Your task to perform on an android device: toggle show notifications on the lock screen Image 0: 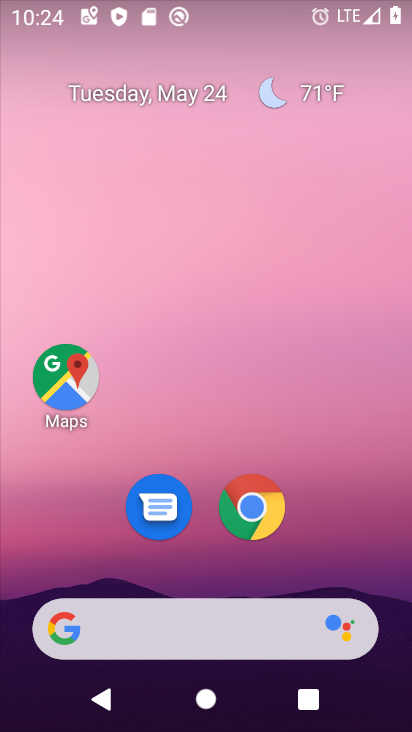
Step 0: drag from (232, 728) to (234, 104)
Your task to perform on an android device: toggle show notifications on the lock screen Image 1: 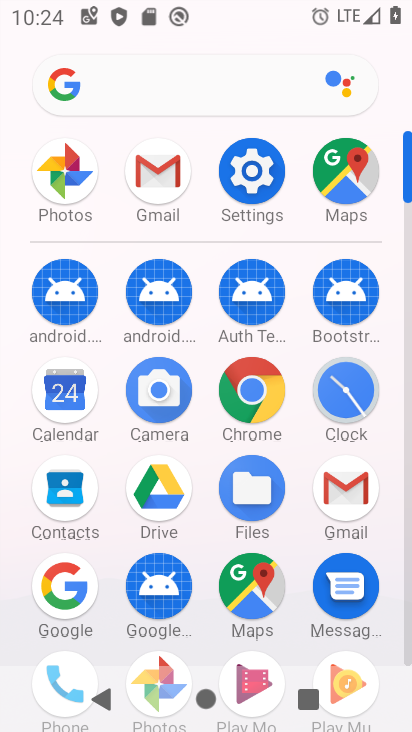
Step 1: click (242, 173)
Your task to perform on an android device: toggle show notifications on the lock screen Image 2: 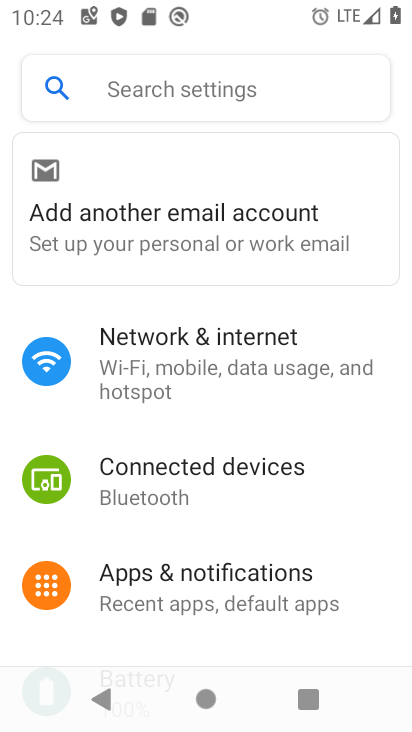
Step 2: click (176, 579)
Your task to perform on an android device: toggle show notifications on the lock screen Image 3: 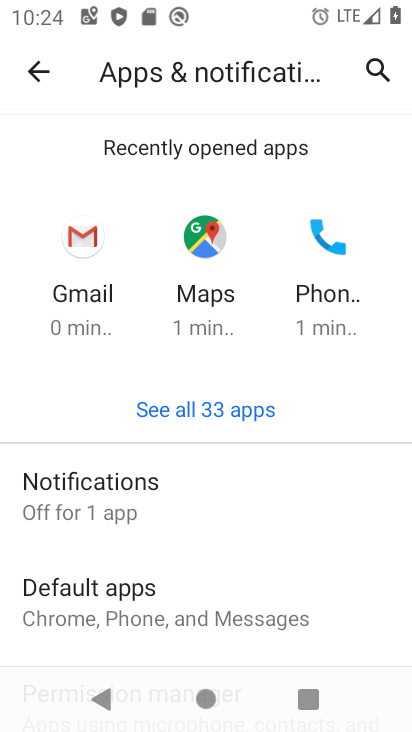
Step 3: click (80, 501)
Your task to perform on an android device: toggle show notifications on the lock screen Image 4: 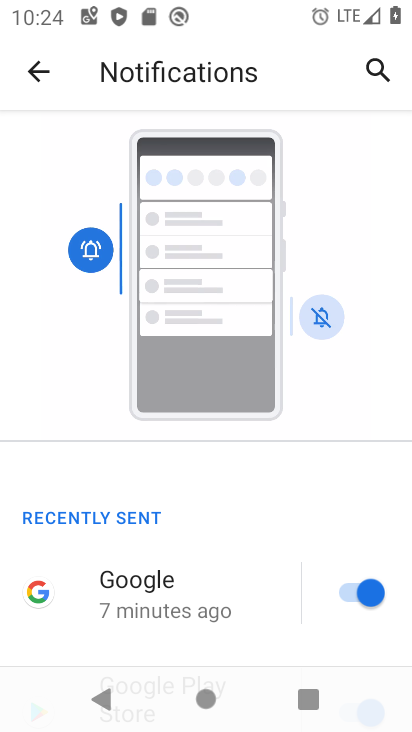
Step 4: drag from (159, 621) to (171, 314)
Your task to perform on an android device: toggle show notifications on the lock screen Image 5: 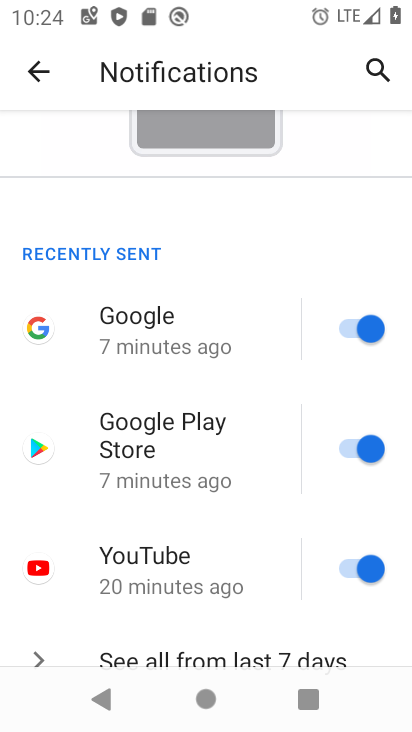
Step 5: drag from (213, 612) to (215, 309)
Your task to perform on an android device: toggle show notifications on the lock screen Image 6: 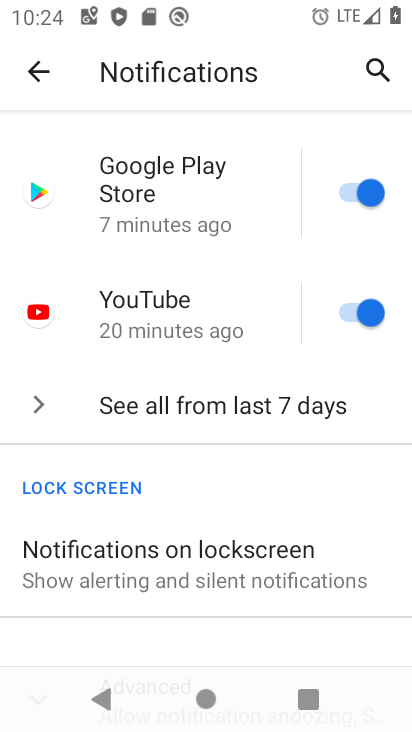
Step 6: drag from (187, 638) to (198, 341)
Your task to perform on an android device: toggle show notifications on the lock screen Image 7: 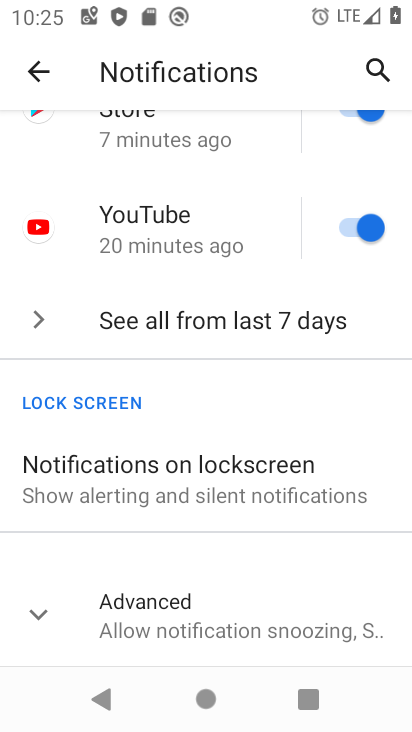
Step 7: click (137, 487)
Your task to perform on an android device: toggle show notifications on the lock screen Image 8: 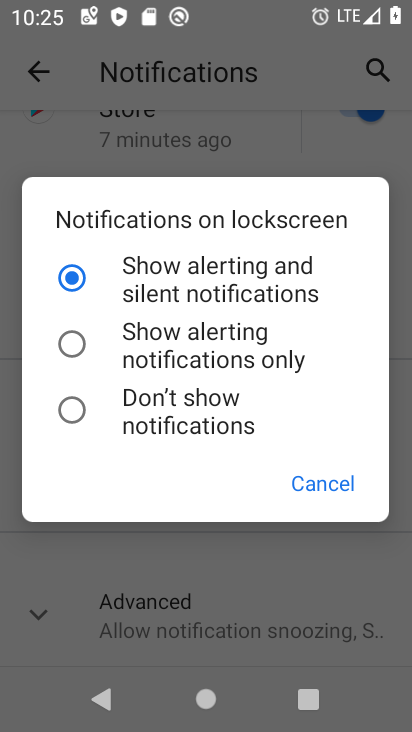
Step 8: click (69, 338)
Your task to perform on an android device: toggle show notifications on the lock screen Image 9: 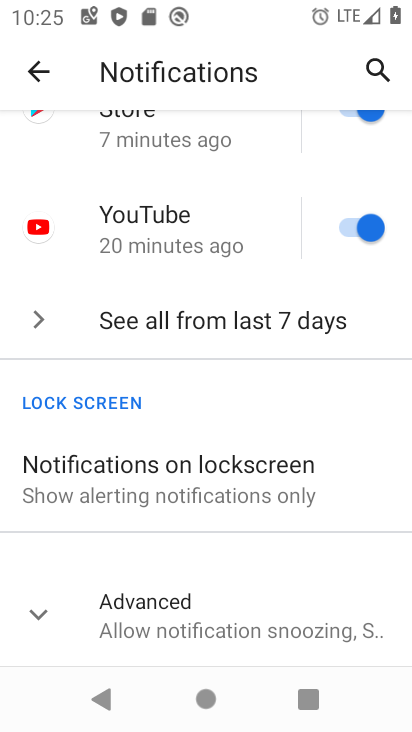
Step 9: task complete